Your task to perform on an android device: Open Google Chrome and open the bookmarks view Image 0: 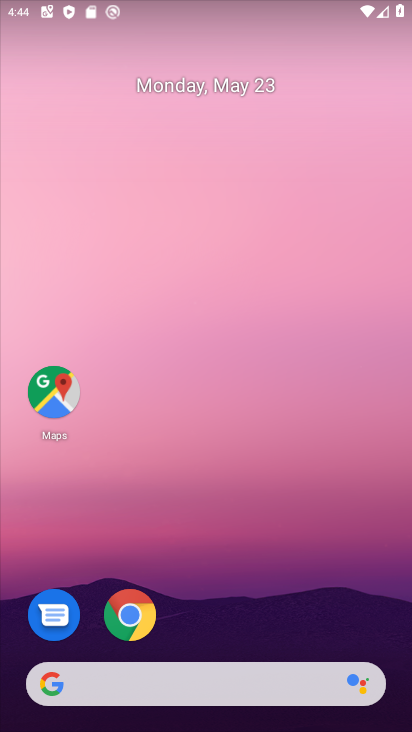
Step 0: click (116, 616)
Your task to perform on an android device: Open Google Chrome and open the bookmarks view Image 1: 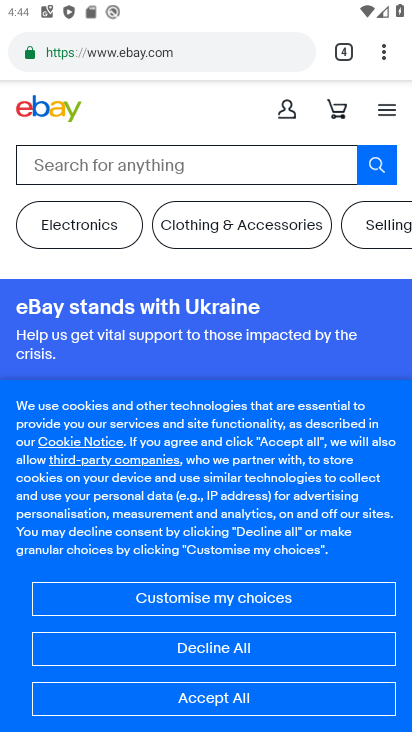
Step 1: task complete